Your task to perform on an android device: Open Youtube and go to the subscriptions tab Image 0: 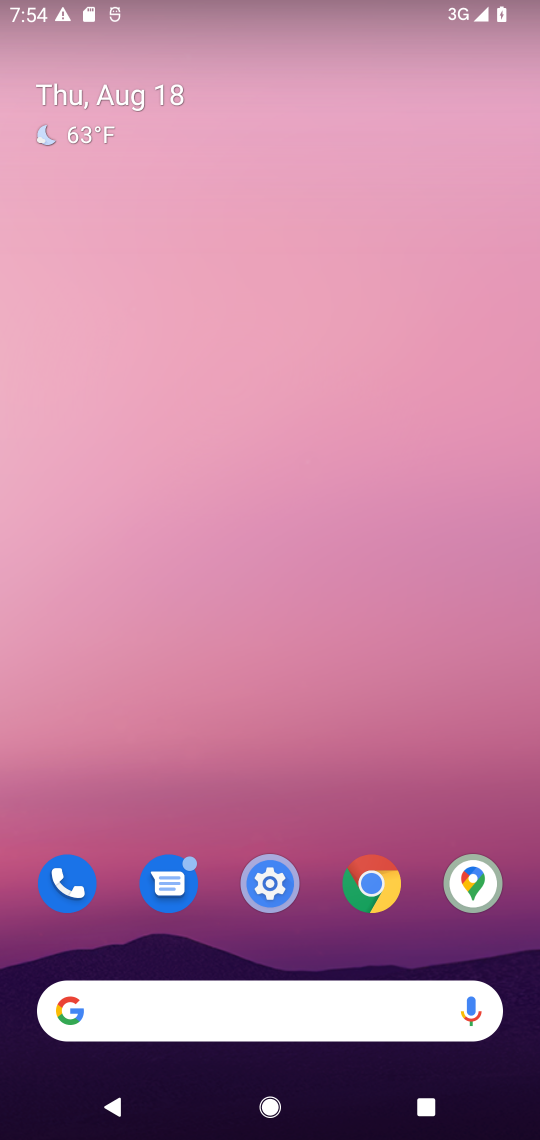
Step 0: drag from (31, 1101) to (172, 23)
Your task to perform on an android device: Open Youtube and go to the subscriptions tab Image 1: 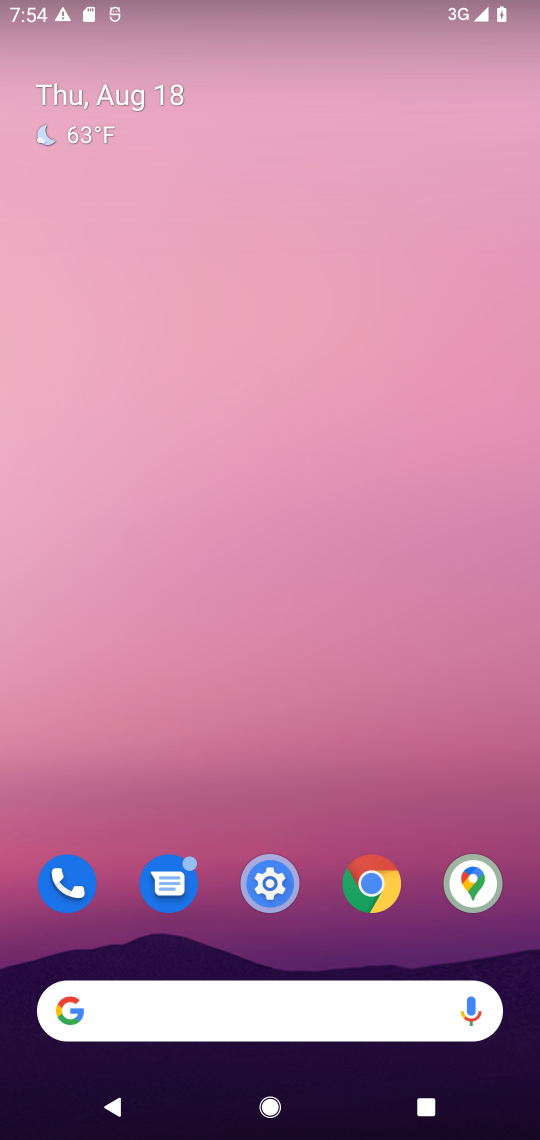
Step 1: drag from (33, 1051) to (305, 339)
Your task to perform on an android device: Open Youtube and go to the subscriptions tab Image 2: 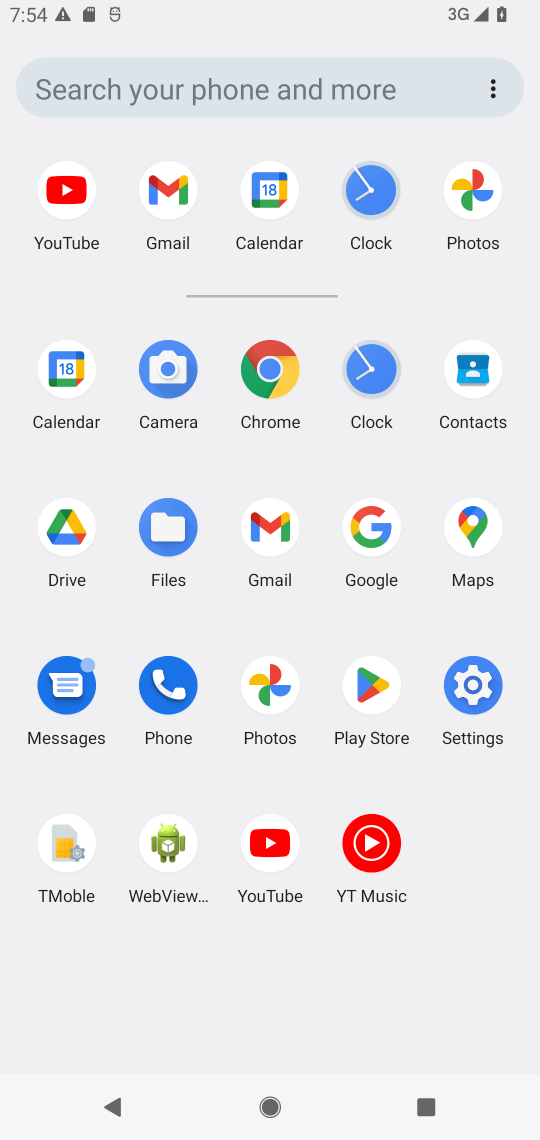
Step 2: click (262, 837)
Your task to perform on an android device: Open Youtube and go to the subscriptions tab Image 3: 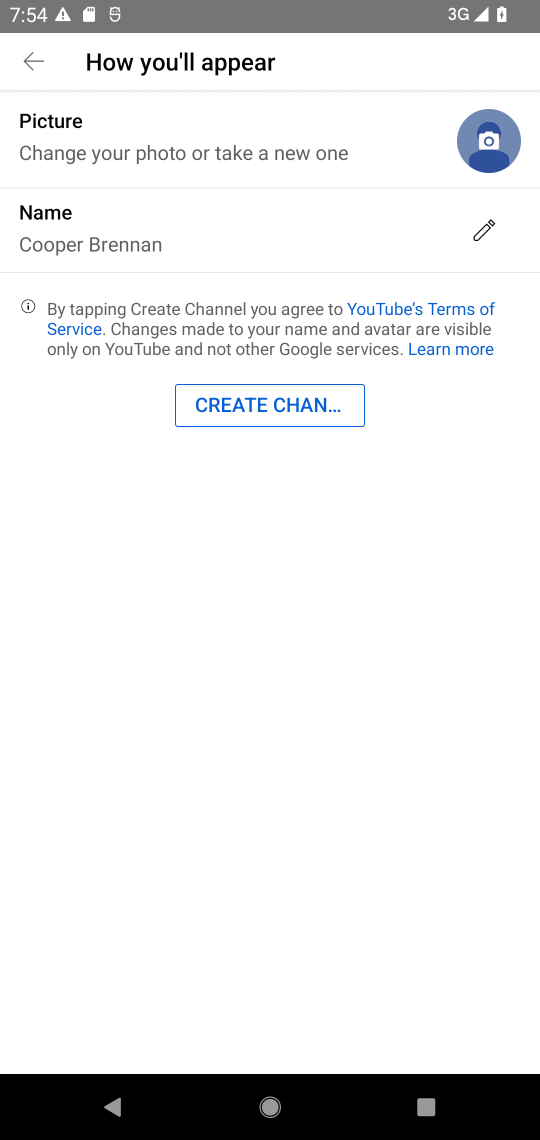
Step 3: click (33, 62)
Your task to perform on an android device: Open Youtube and go to the subscriptions tab Image 4: 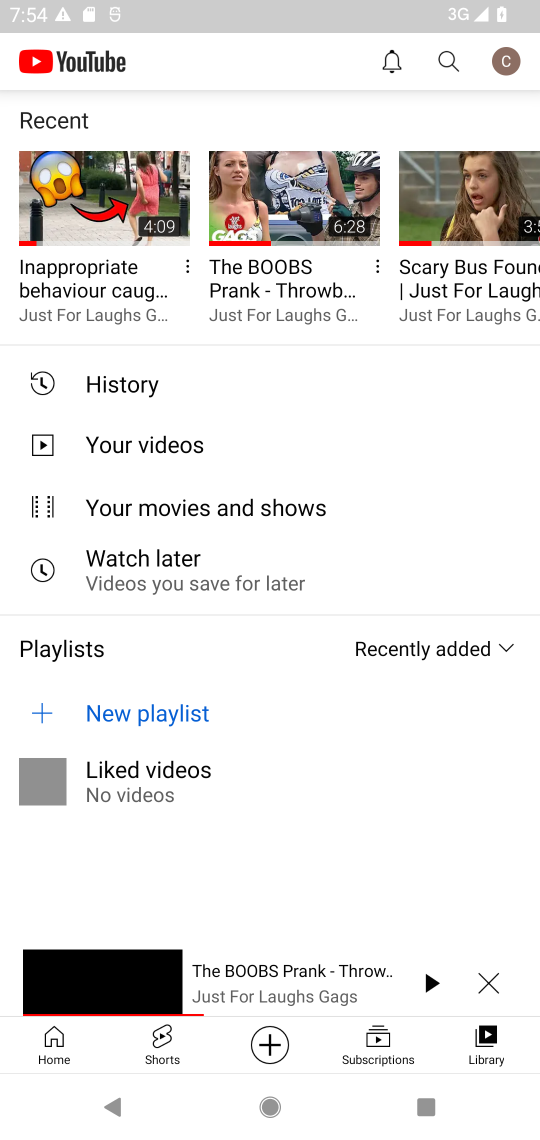
Step 4: click (58, 1036)
Your task to perform on an android device: Open Youtube and go to the subscriptions tab Image 5: 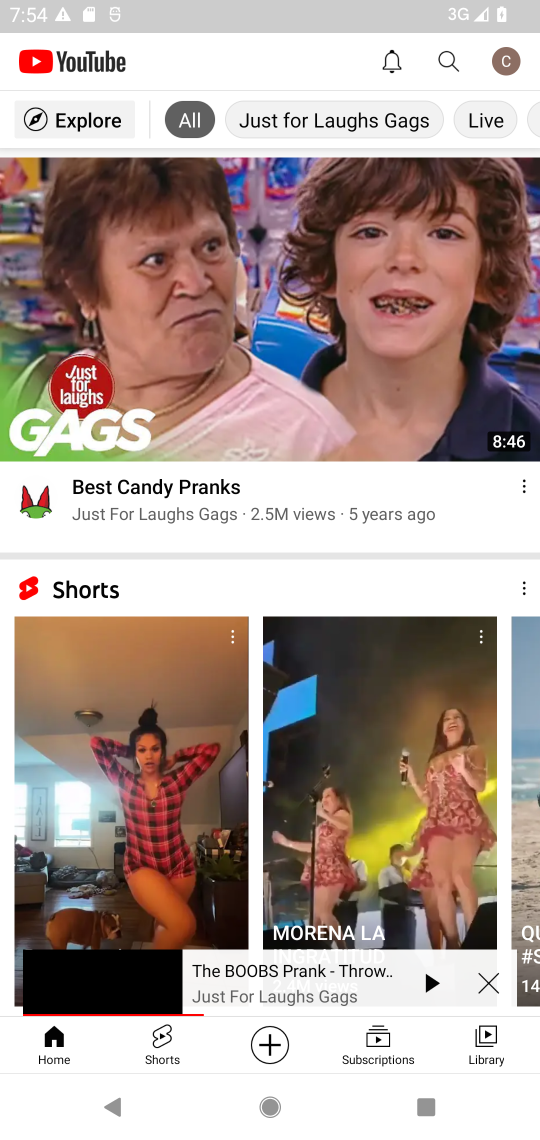
Step 5: click (355, 1045)
Your task to perform on an android device: Open Youtube and go to the subscriptions tab Image 6: 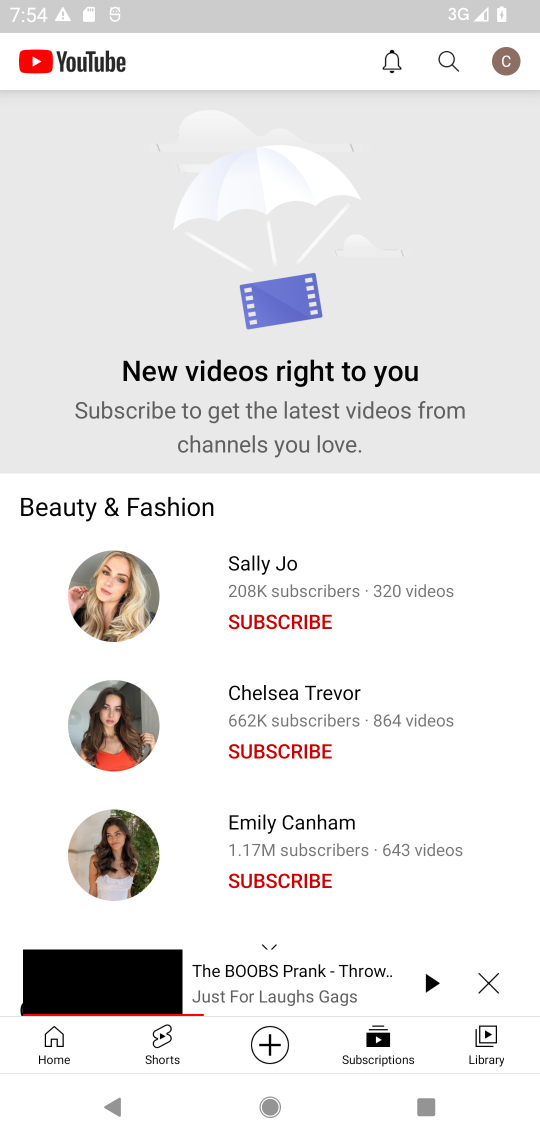
Step 6: task complete